Your task to perform on an android device: Show me productivity apps on the Play Store Image 0: 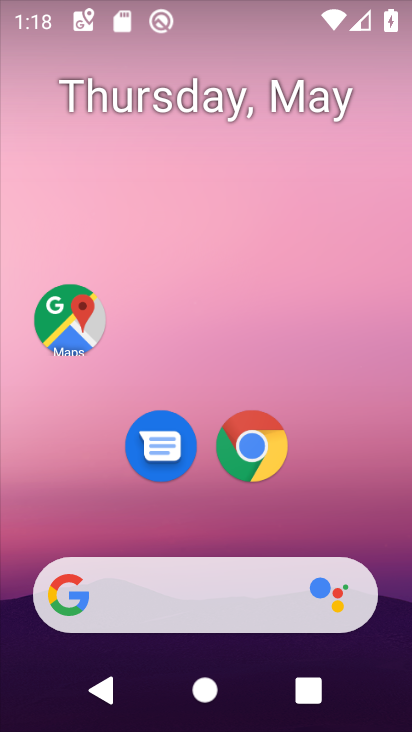
Step 0: drag from (166, 542) to (161, 5)
Your task to perform on an android device: Show me productivity apps on the Play Store Image 1: 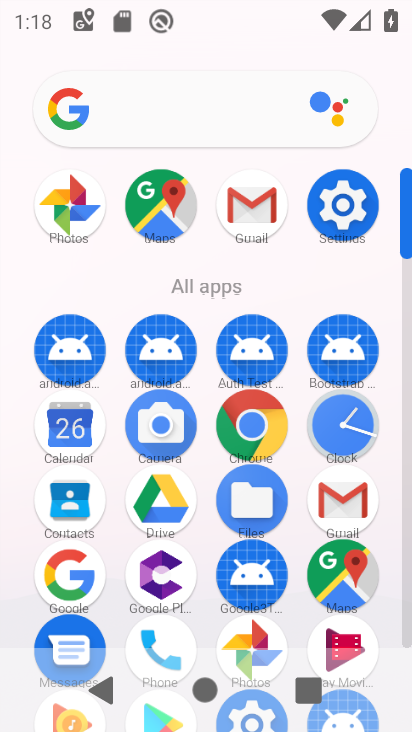
Step 1: drag from (201, 538) to (208, 212)
Your task to perform on an android device: Show me productivity apps on the Play Store Image 2: 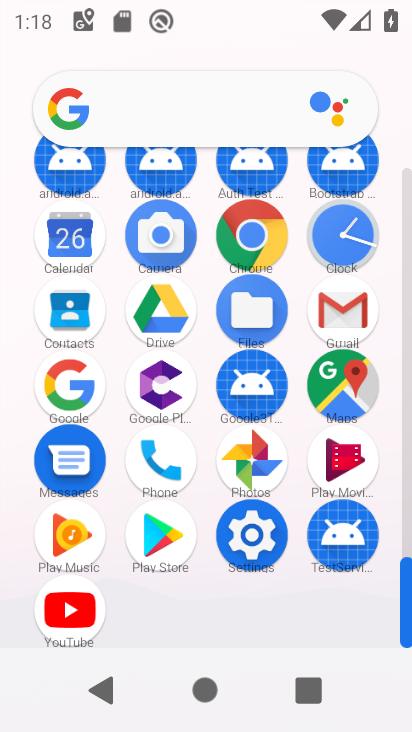
Step 2: click (162, 552)
Your task to perform on an android device: Show me productivity apps on the Play Store Image 3: 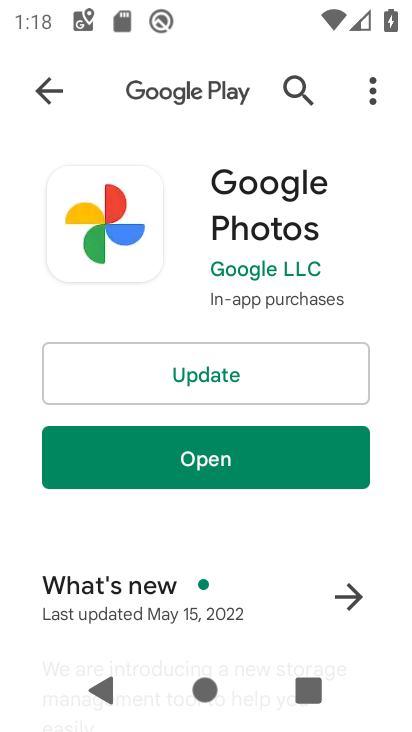
Step 3: click (52, 69)
Your task to perform on an android device: Show me productivity apps on the Play Store Image 4: 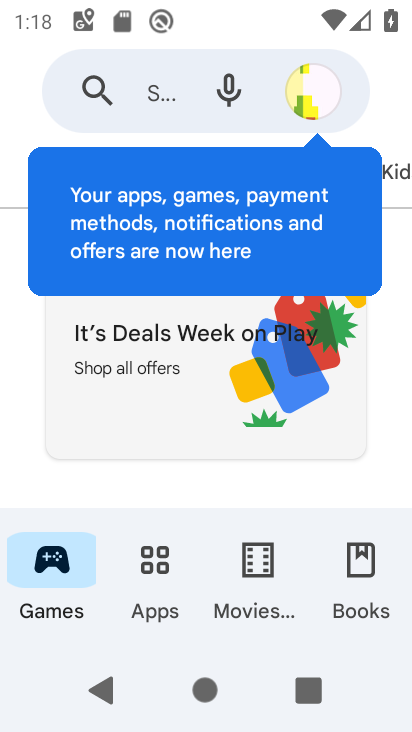
Step 4: click (144, 579)
Your task to perform on an android device: Show me productivity apps on the Play Store Image 5: 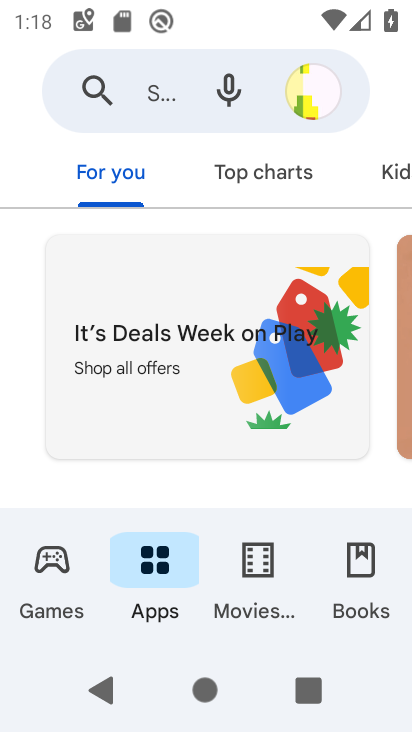
Step 5: drag from (390, 184) to (139, 172)
Your task to perform on an android device: Show me productivity apps on the Play Store Image 6: 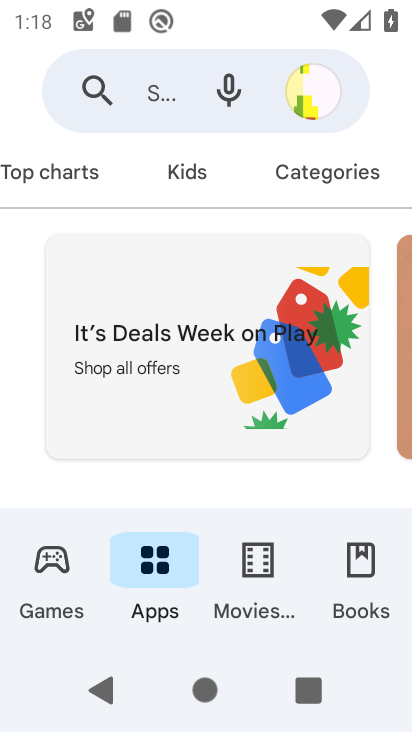
Step 6: click (349, 179)
Your task to perform on an android device: Show me productivity apps on the Play Store Image 7: 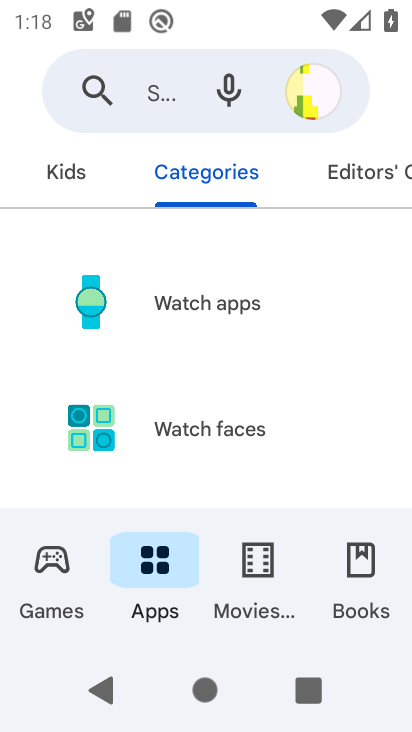
Step 7: drag from (142, 405) to (159, 155)
Your task to perform on an android device: Show me productivity apps on the Play Store Image 8: 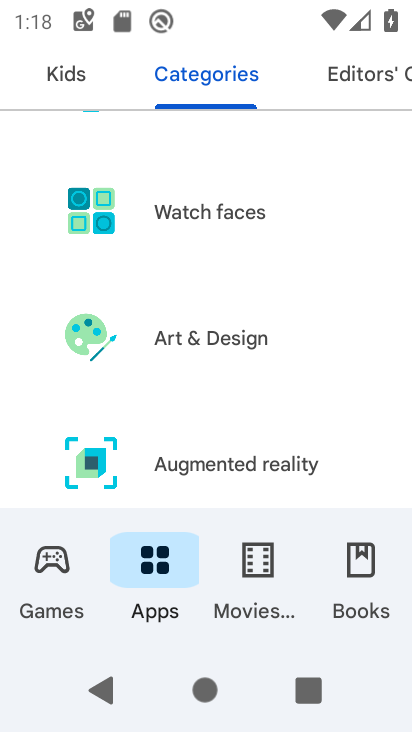
Step 8: drag from (150, 446) to (196, 137)
Your task to perform on an android device: Show me productivity apps on the Play Store Image 9: 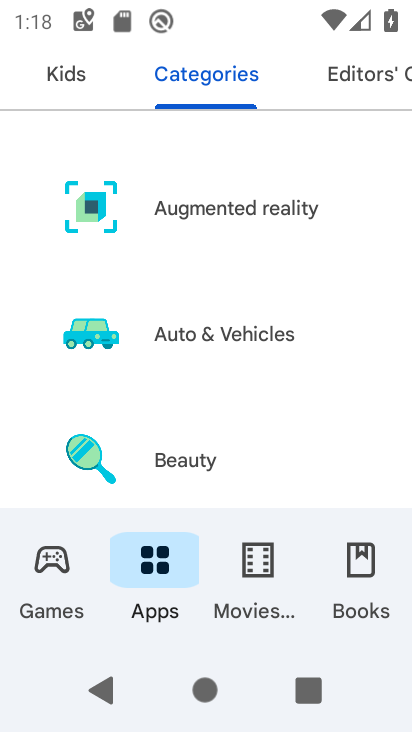
Step 9: drag from (167, 424) to (210, 99)
Your task to perform on an android device: Show me productivity apps on the Play Store Image 10: 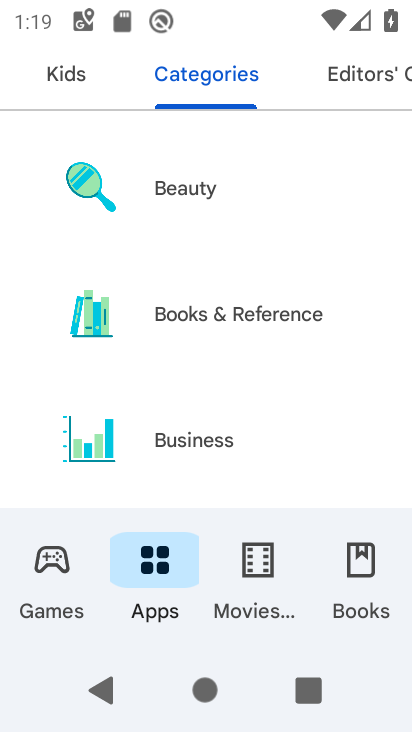
Step 10: drag from (204, 454) to (262, 98)
Your task to perform on an android device: Show me productivity apps on the Play Store Image 11: 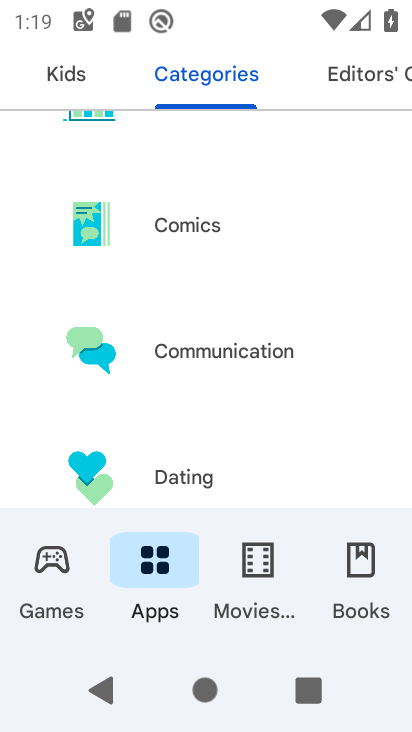
Step 11: drag from (102, 469) to (138, 162)
Your task to perform on an android device: Show me productivity apps on the Play Store Image 12: 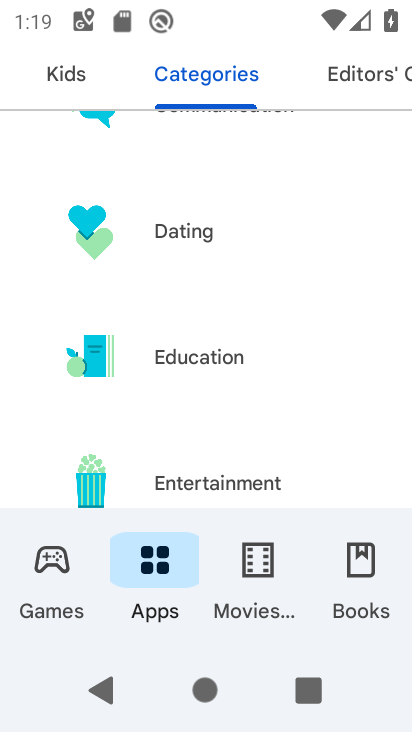
Step 12: drag from (179, 425) to (222, 140)
Your task to perform on an android device: Show me productivity apps on the Play Store Image 13: 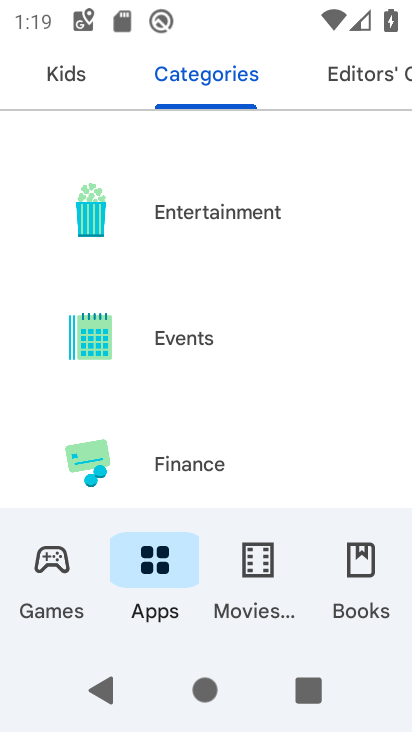
Step 13: drag from (157, 438) to (269, 25)
Your task to perform on an android device: Show me productivity apps on the Play Store Image 14: 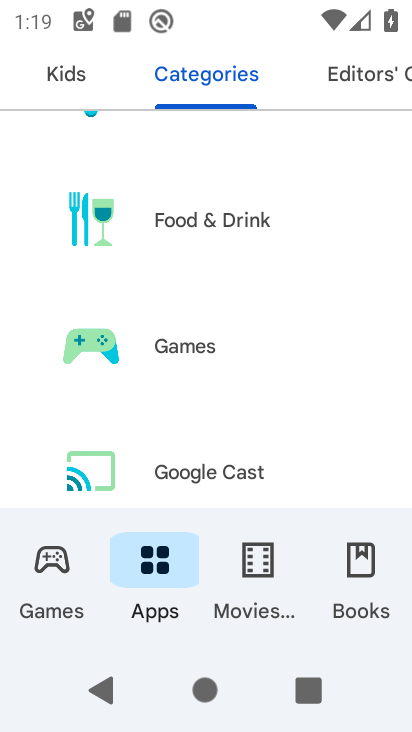
Step 14: drag from (185, 459) to (275, 102)
Your task to perform on an android device: Show me productivity apps on the Play Store Image 15: 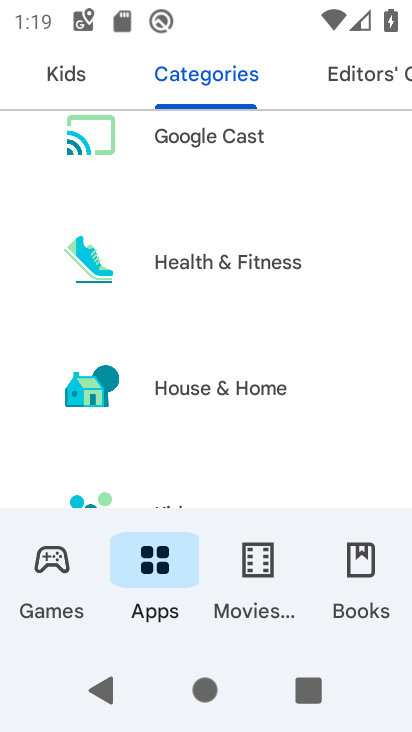
Step 15: drag from (193, 429) to (260, 37)
Your task to perform on an android device: Show me productivity apps on the Play Store Image 16: 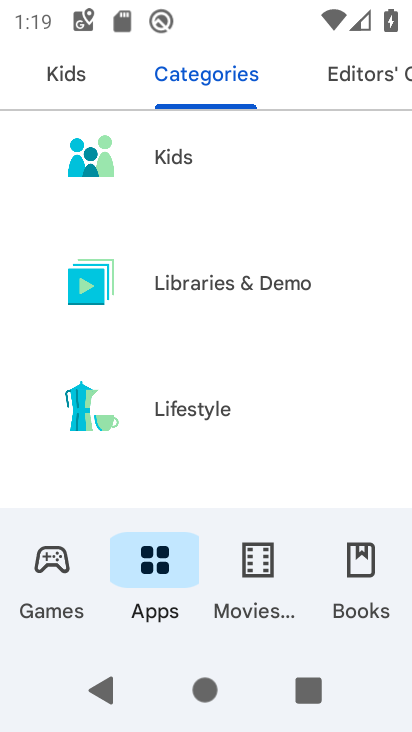
Step 16: drag from (182, 448) to (247, 83)
Your task to perform on an android device: Show me productivity apps on the Play Store Image 17: 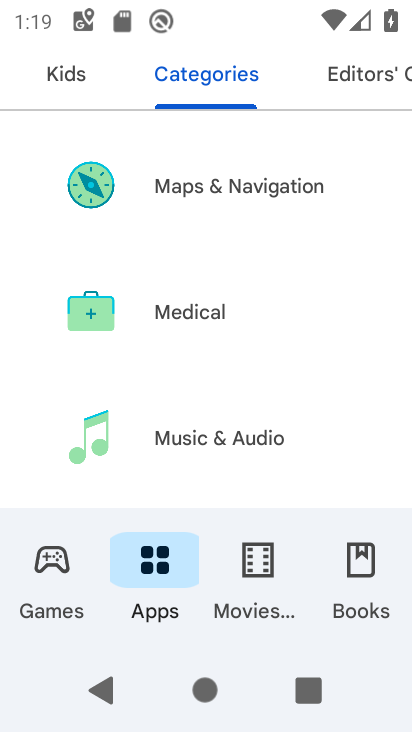
Step 17: drag from (155, 402) to (207, 109)
Your task to perform on an android device: Show me productivity apps on the Play Store Image 18: 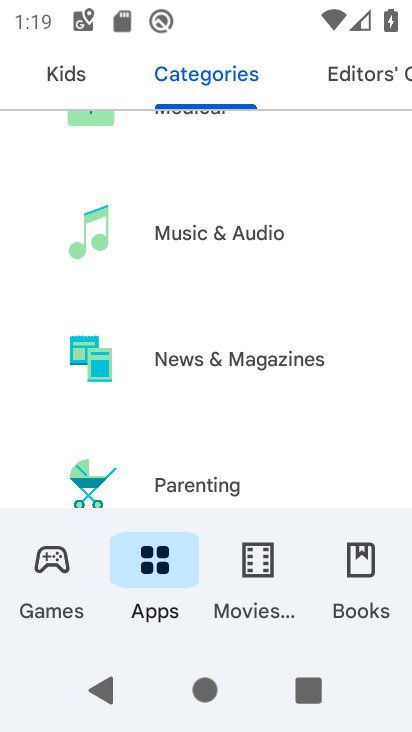
Step 18: drag from (178, 456) to (217, 197)
Your task to perform on an android device: Show me productivity apps on the Play Store Image 19: 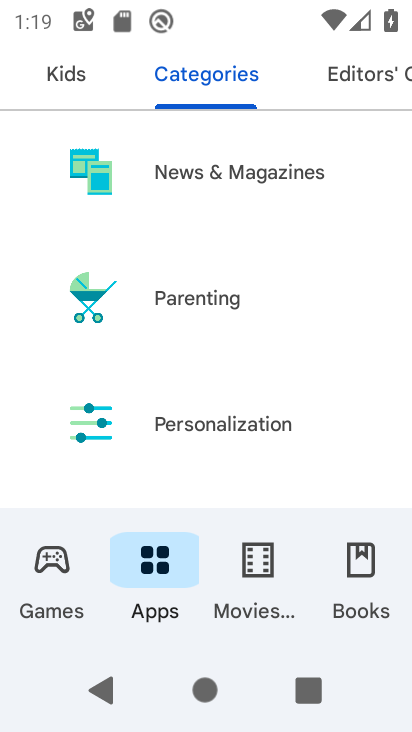
Step 19: drag from (187, 459) to (232, 199)
Your task to perform on an android device: Show me productivity apps on the Play Store Image 20: 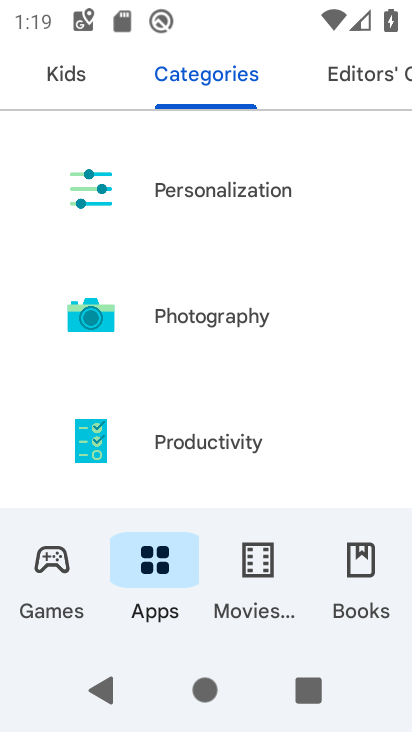
Step 20: click (200, 450)
Your task to perform on an android device: Show me productivity apps on the Play Store Image 21: 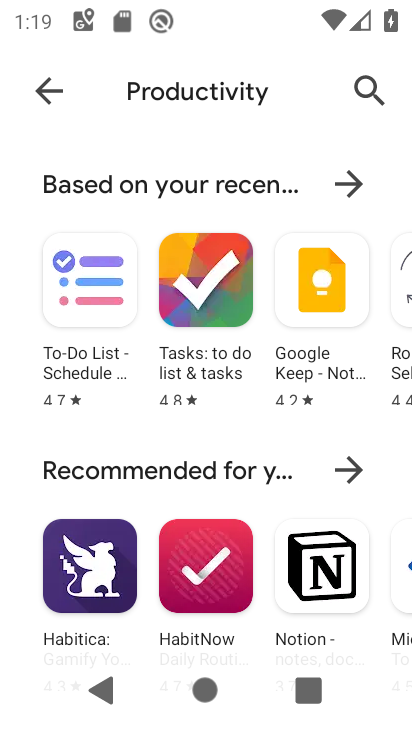
Step 21: task complete